Your task to perform on an android device: Search for the best books on Goodreads Image 0: 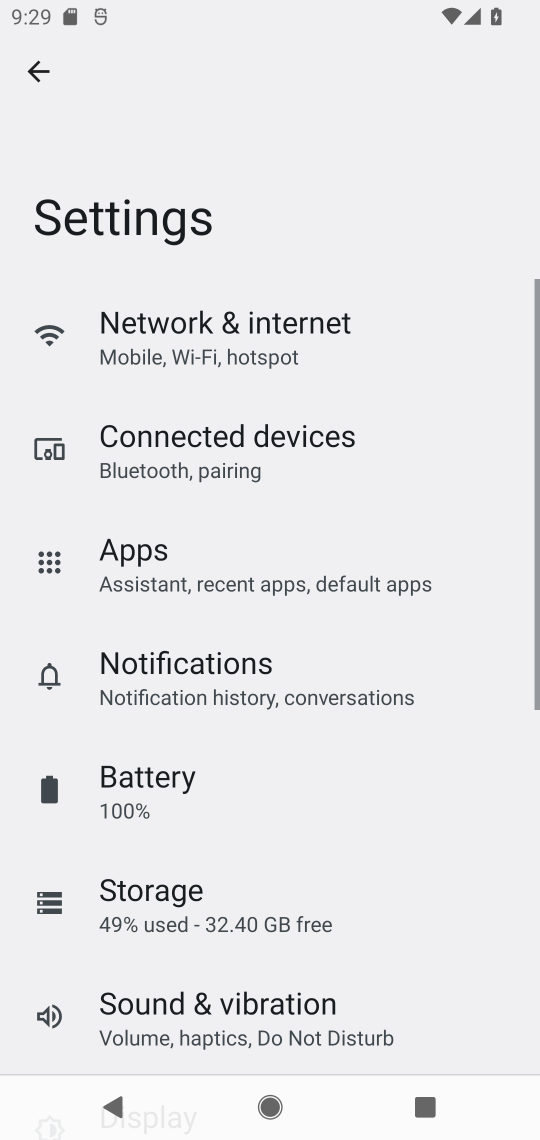
Step 0: press home button
Your task to perform on an android device: Search for the best books on Goodreads Image 1: 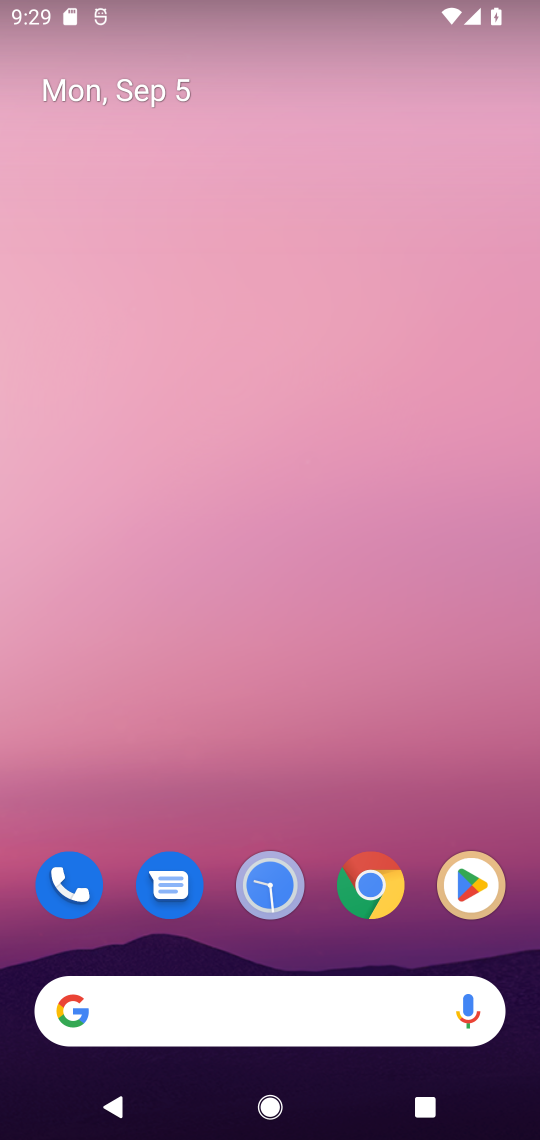
Step 1: drag from (299, 282) to (271, 46)
Your task to perform on an android device: Search for the best books on Goodreads Image 2: 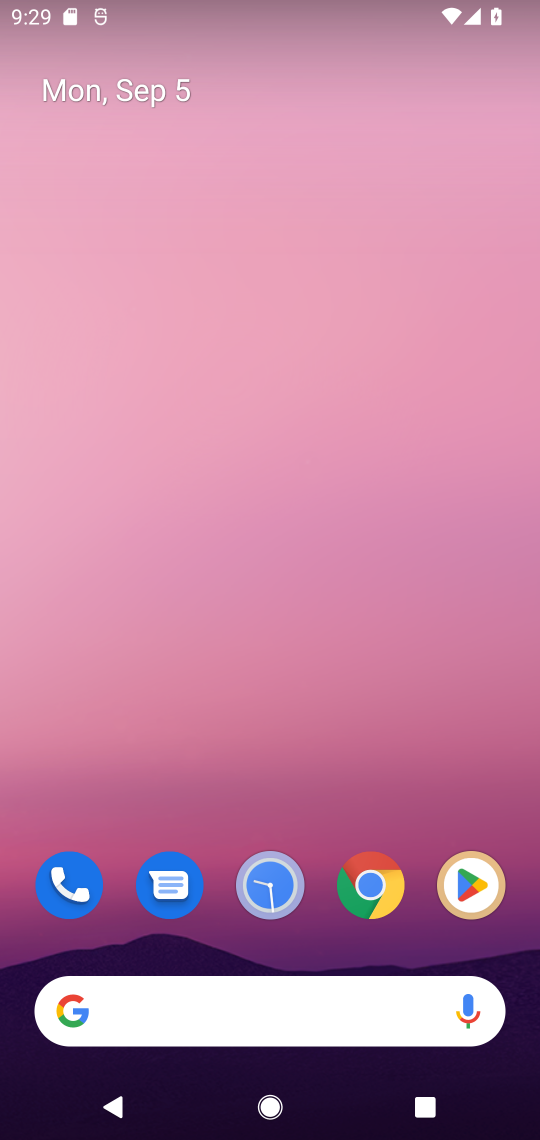
Step 2: drag from (331, 934) to (290, 124)
Your task to perform on an android device: Search for the best books on Goodreads Image 3: 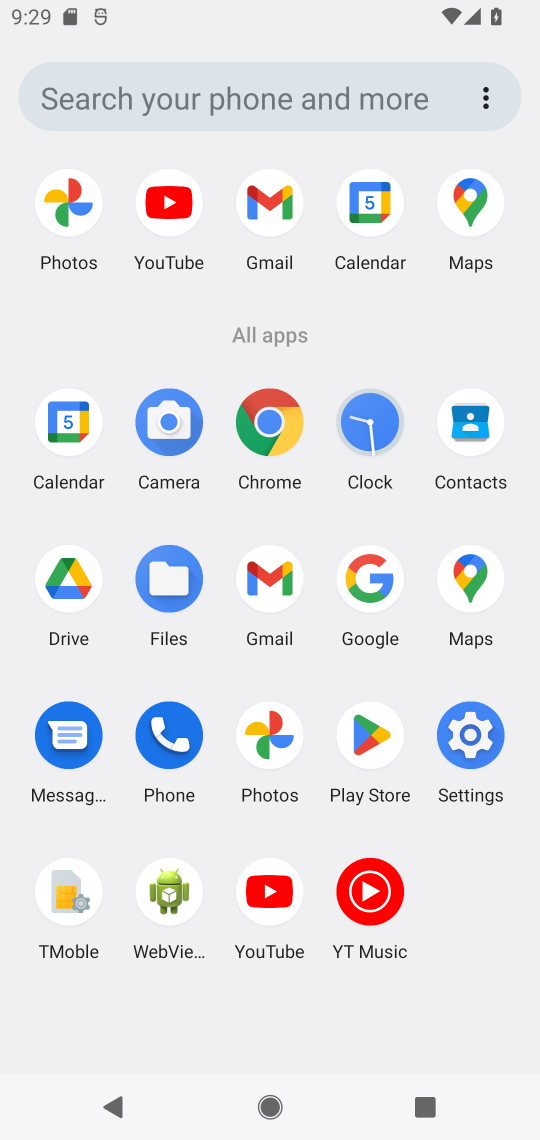
Step 3: click (366, 579)
Your task to perform on an android device: Search for the best books on Goodreads Image 4: 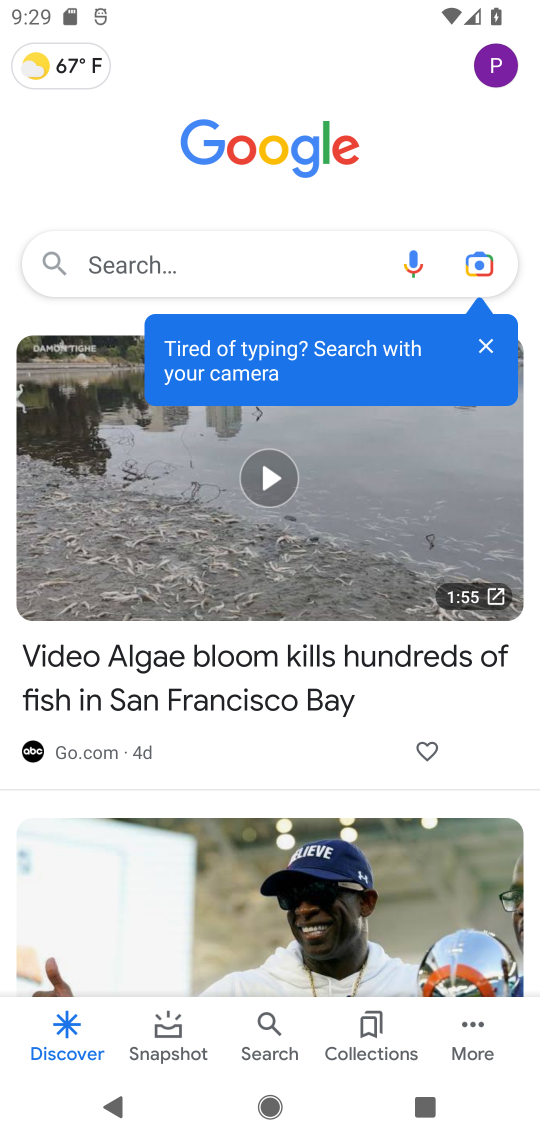
Step 4: click (184, 267)
Your task to perform on an android device: Search for the best books on Goodreads Image 5: 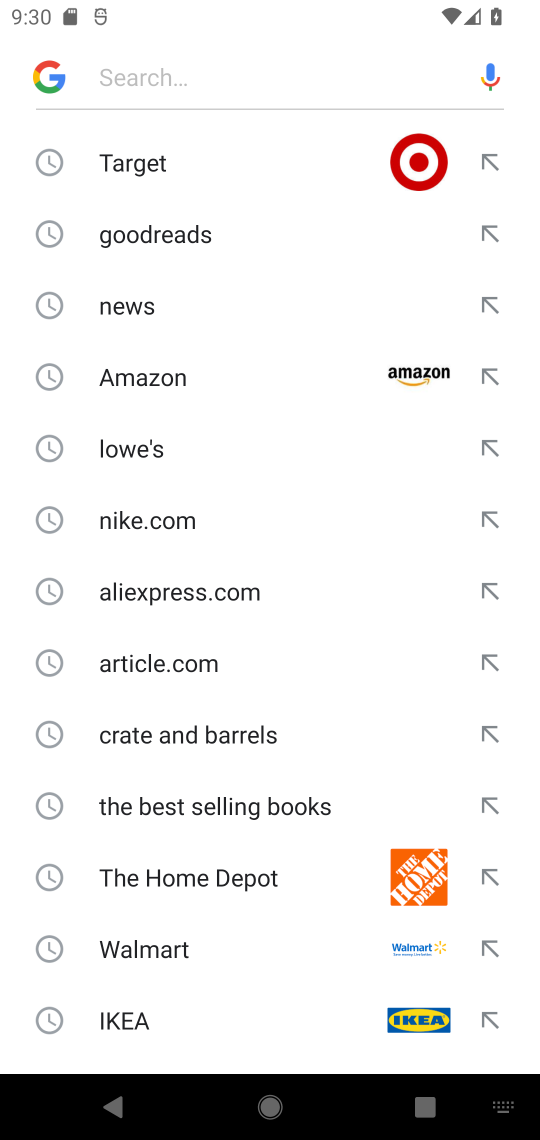
Step 5: type "Goodreads"
Your task to perform on an android device: Search for the best books on Goodreads Image 6: 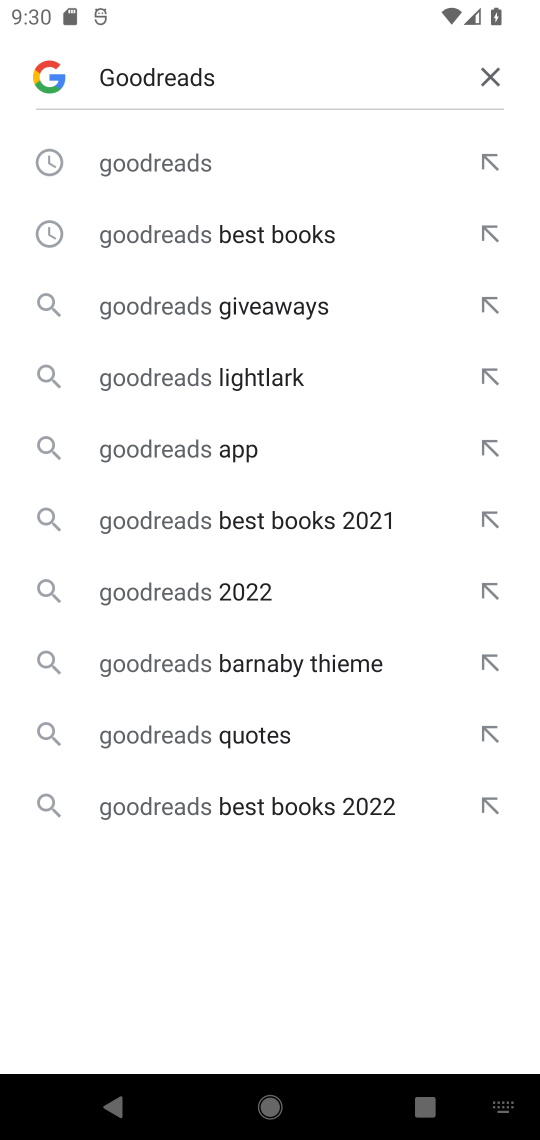
Step 6: click (136, 159)
Your task to perform on an android device: Search for the best books on Goodreads Image 7: 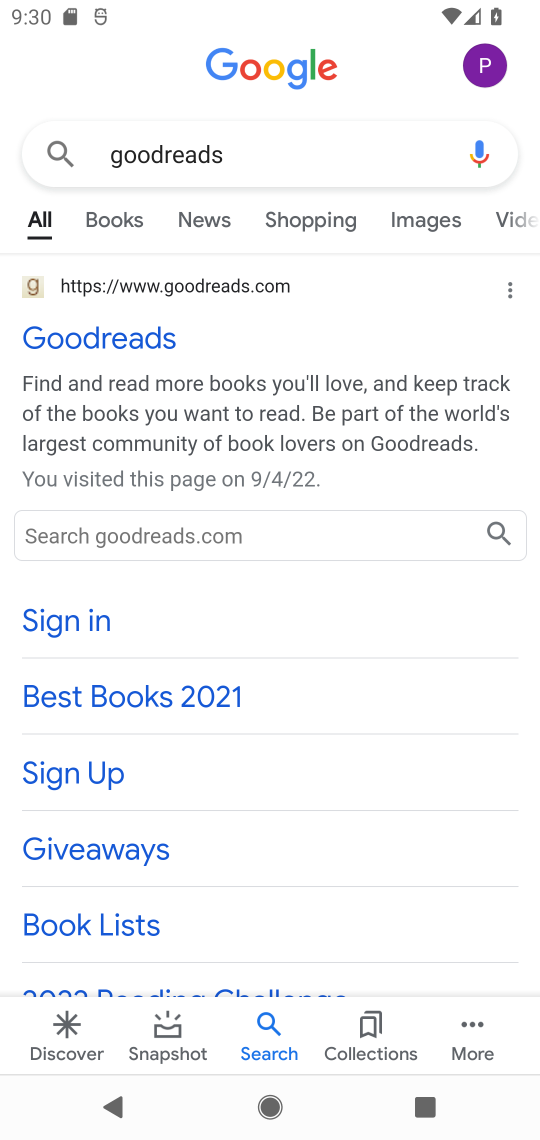
Step 7: click (89, 338)
Your task to perform on an android device: Search for the best books on Goodreads Image 8: 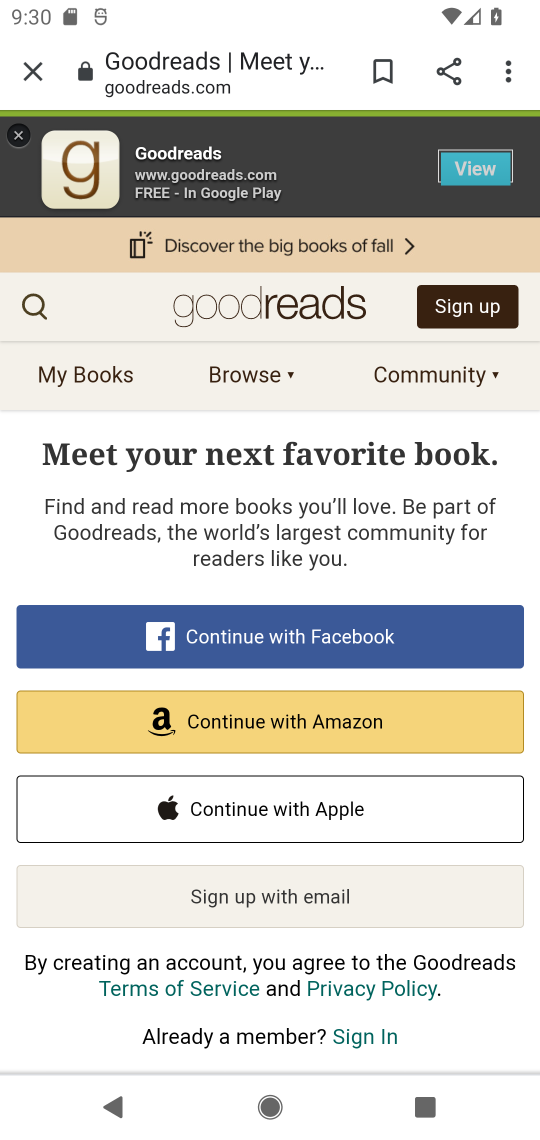
Step 8: click (36, 308)
Your task to perform on an android device: Search for the best books on Goodreads Image 9: 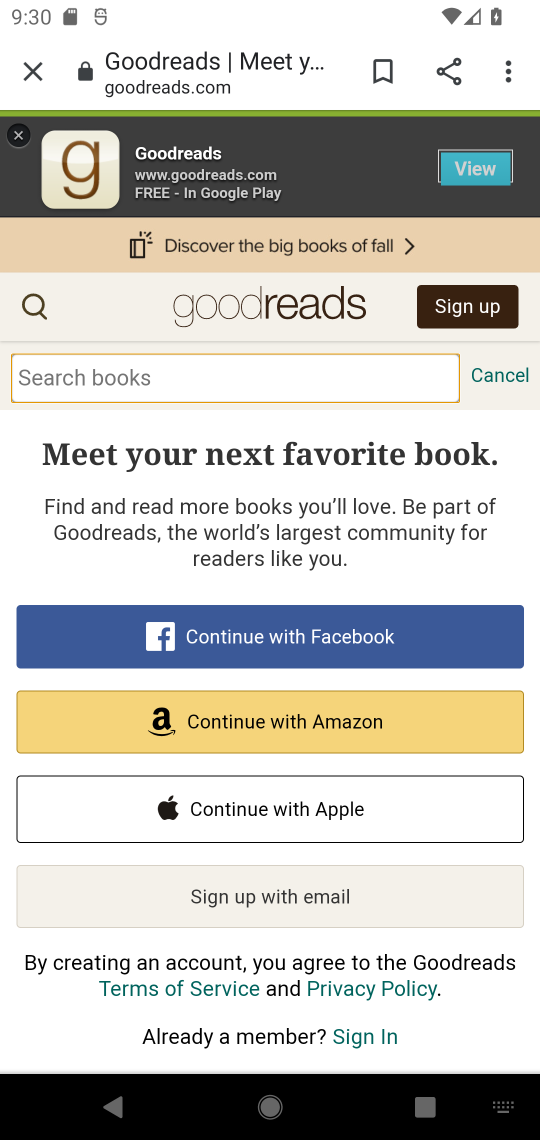
Step 9: type "Goodreads"
Your task to perform on an android device: Search for the best books on Goodreads Image 10: 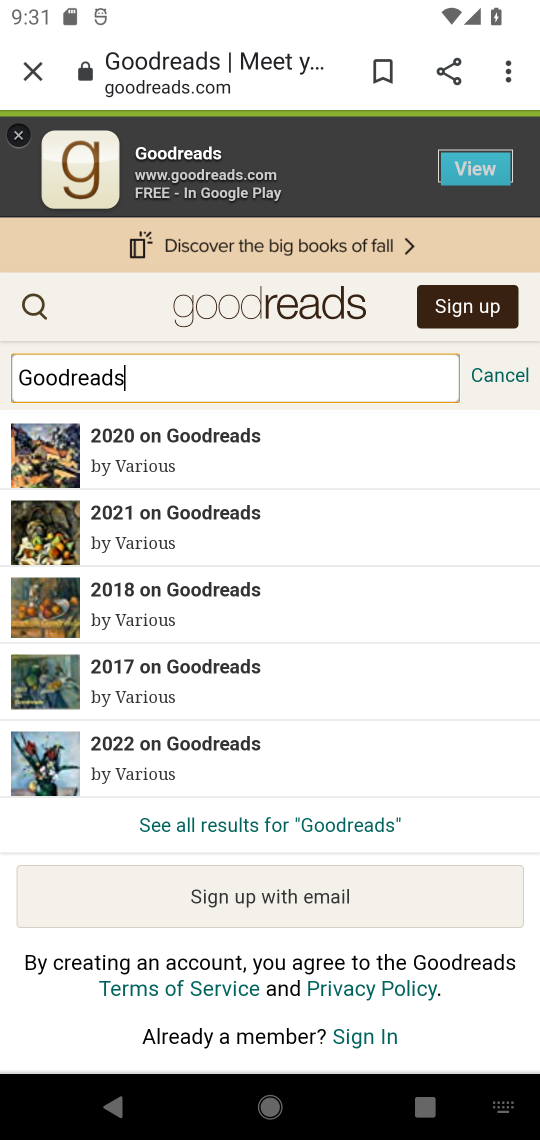
Step 10: click (349, 825)
Your task to perform on an android device: Search for the best books on Goodreads Image 11: 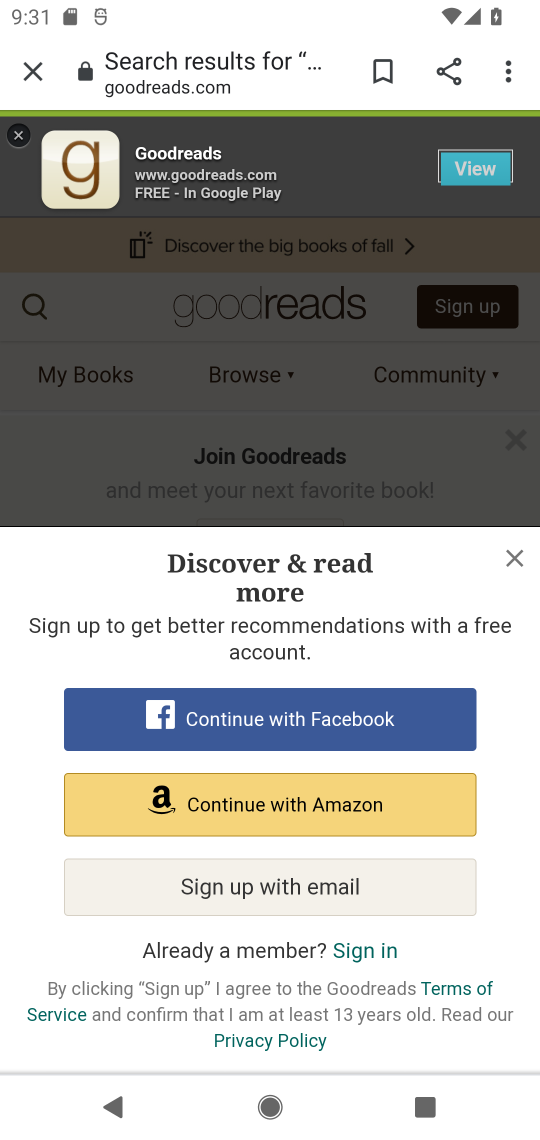
Step 11: click (509, 557)
Your task to perform on an android device: Search for the best books on Goodreads Image 12: 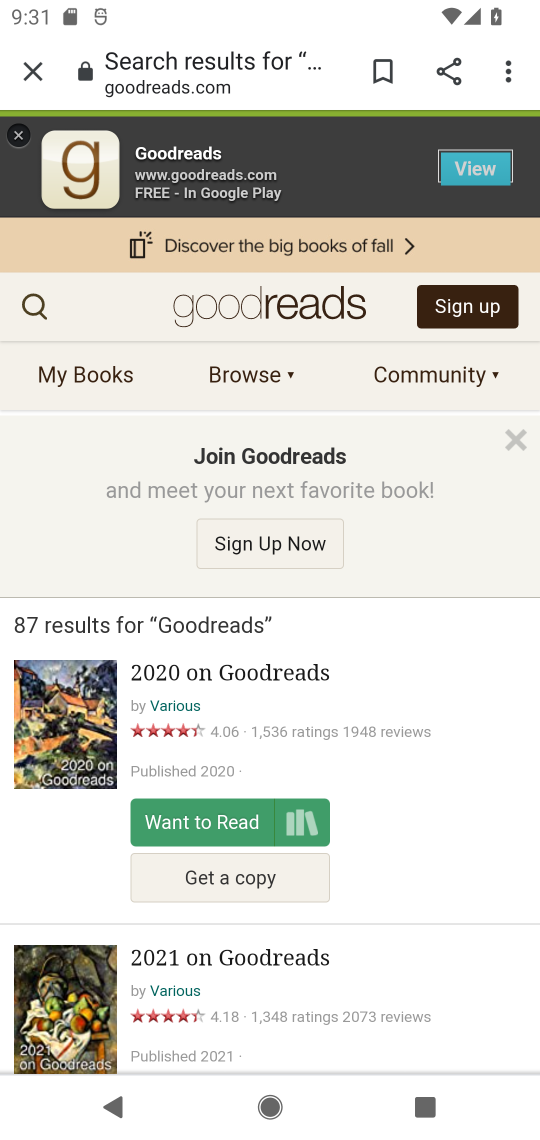
Step 12: task complete